Your task to perform on an android device: What's on my calendar today? Image 0: 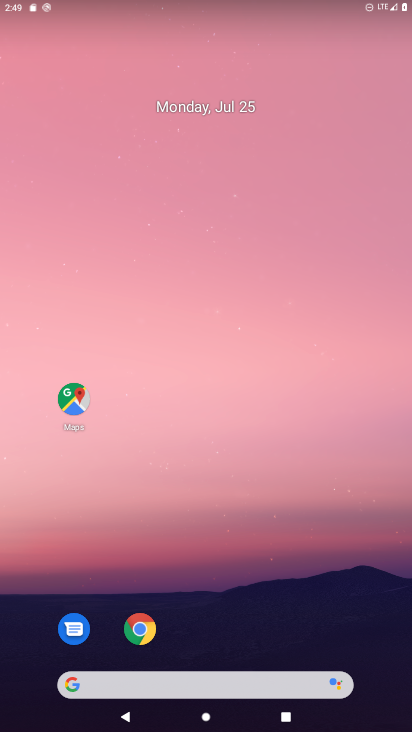
Step 0: drag from (326, 552) to (386, 27)
Your task to perform on an android device: What's on my calendar today? Image 1: 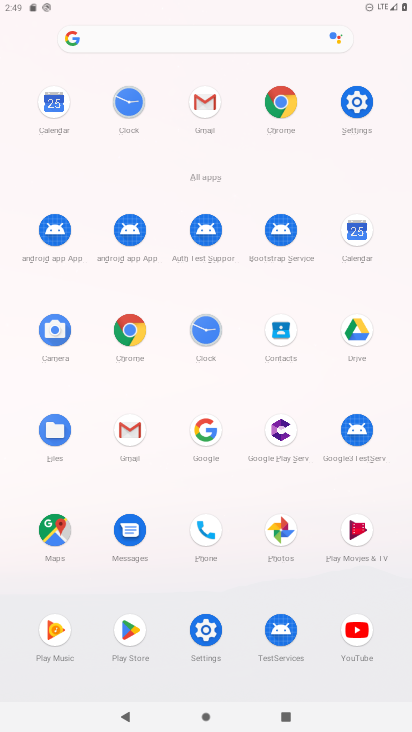
Step 1: click (366, 226)
Your task to perform on an android device: What's on my calendar today? Image 2: 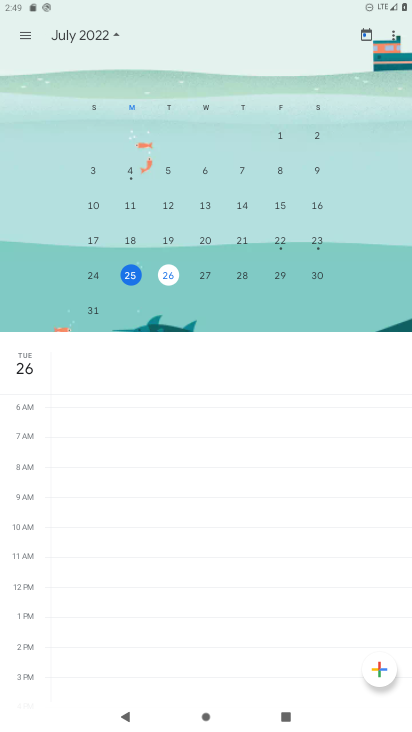
Step 2: click (131, 265)
Your task to perform on an android device: What's on my calendar today? Image 3: 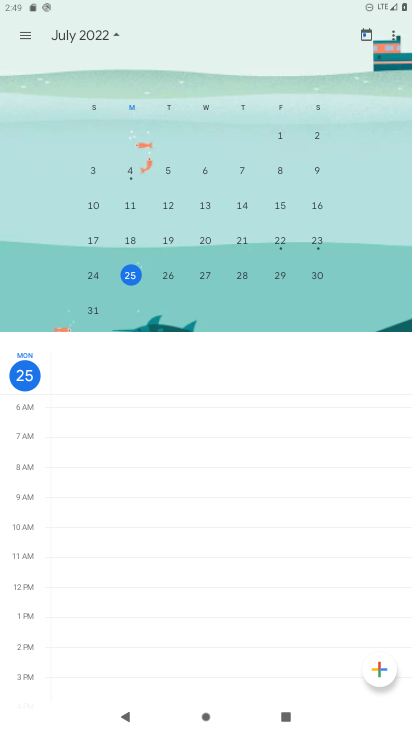
Step 3: click (24, 31)
Your task to perform on an android device: What's on my calendar today? Image 4: 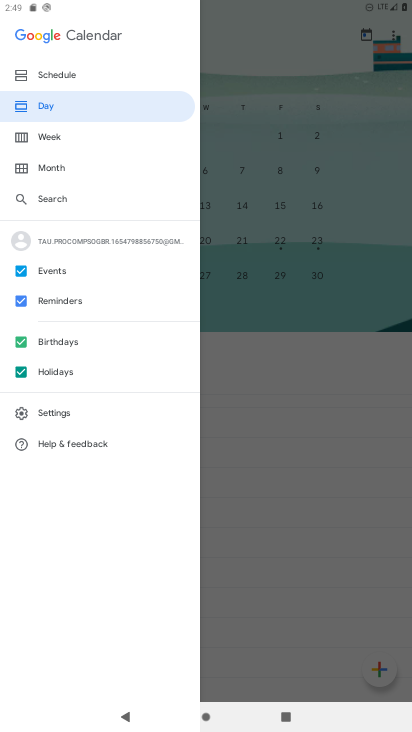
Step 4: click (56, 74)
Your task to perform on an android device: What's on my calendar today? Image 5: 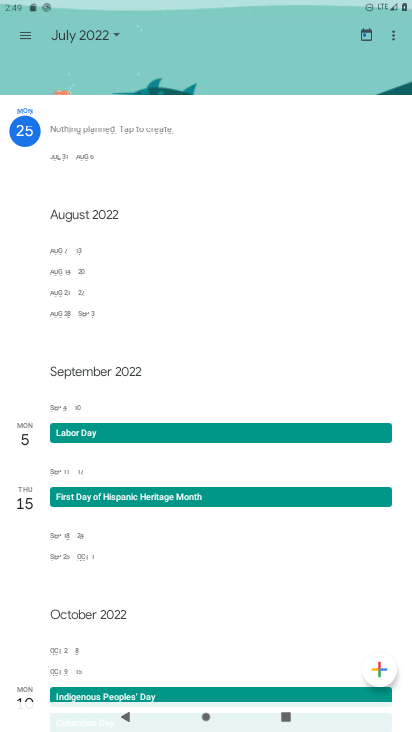
Step 5: task complete